Your task to perform on an android device: Open accessibility settings Image 0: 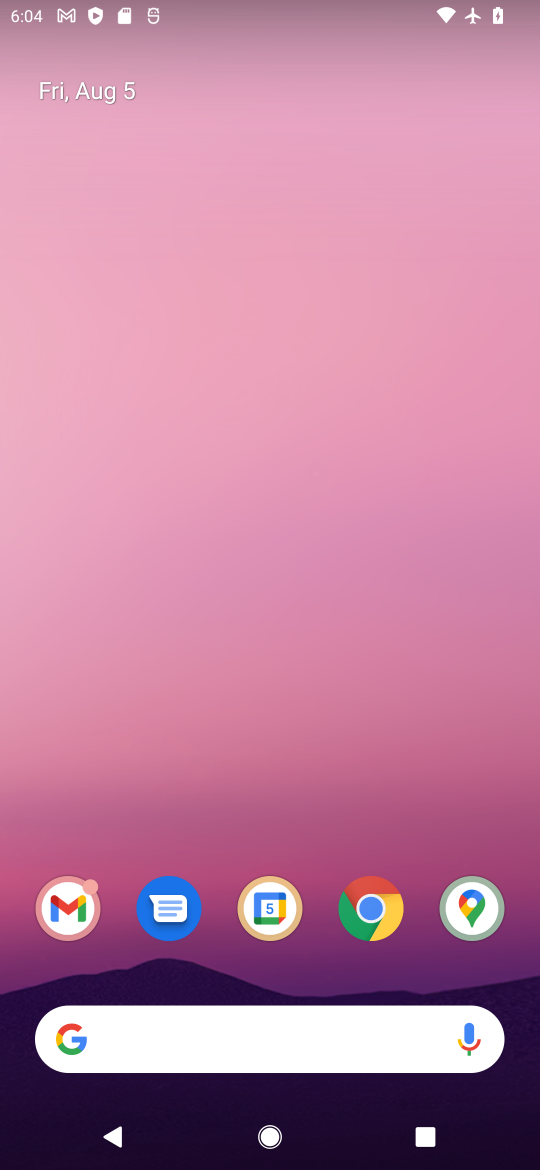
Step 0: drag from (245, 781) to (199, 235)
Your task to perform on an android device: Open accessibility settings Image 1: 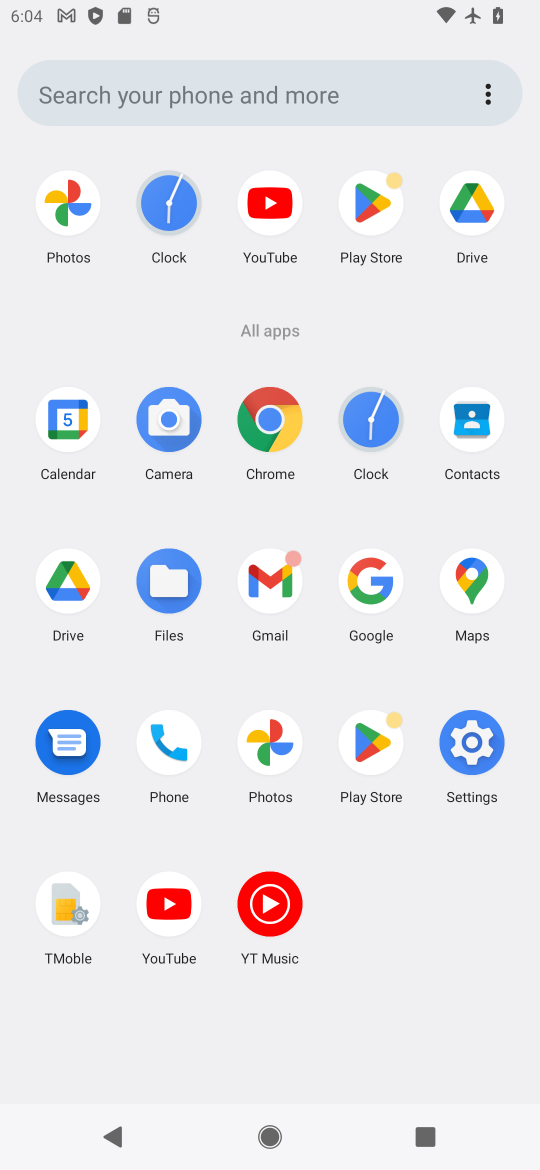
Step 1: click (477, 751)
Your task to perform on an android device: Open accessibility settings Image 2: 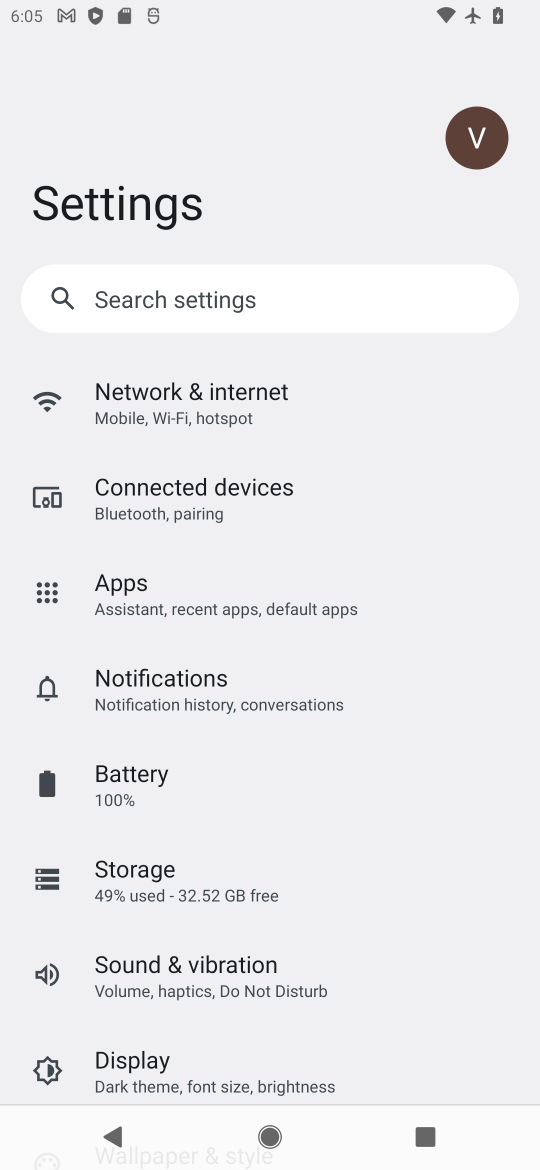
Step 2: drag from (216, 945) to (205, 442)
Your task to perform on an android device: Open accessibility settings Image 3: 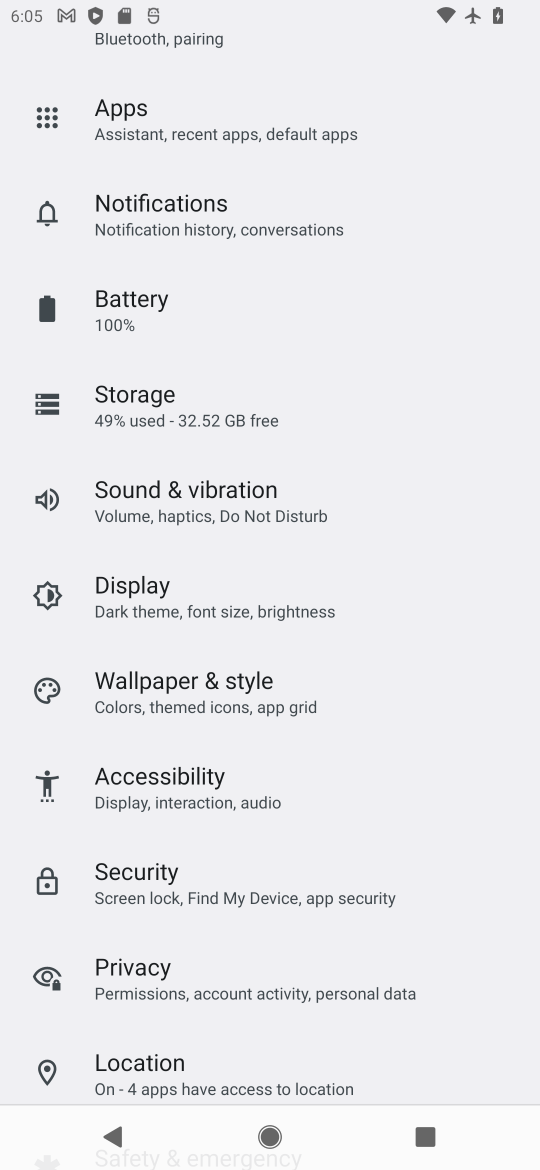
Step 3: click (182, 788)
Your task to perform on an android device: Open accessibility settings Image 4: 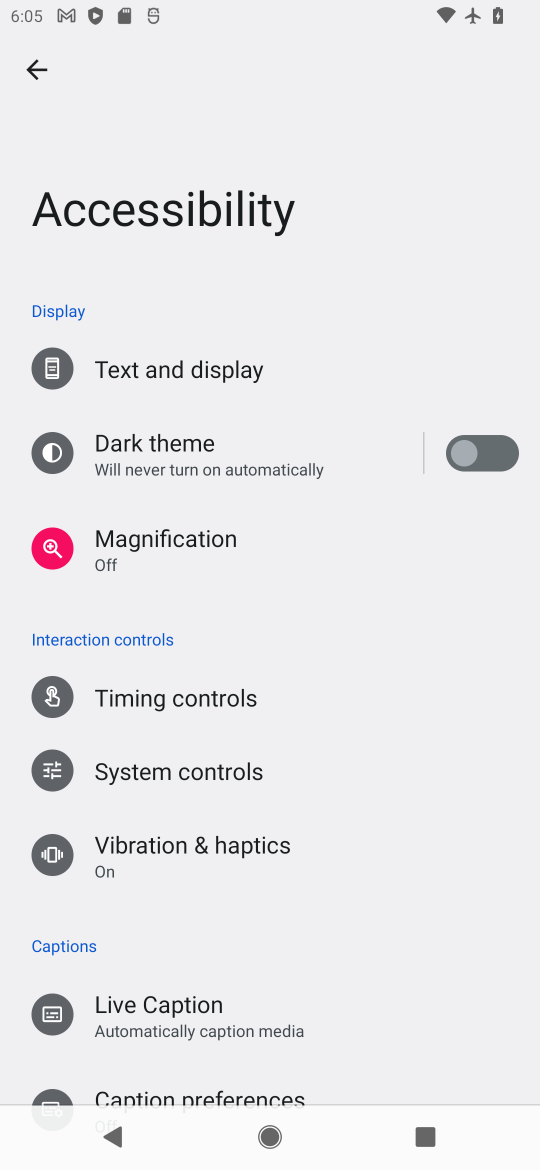
Step 4: task complete